Your task to perform on an android device: Open the Play Movies app and select the watchlist tab. Image 0: 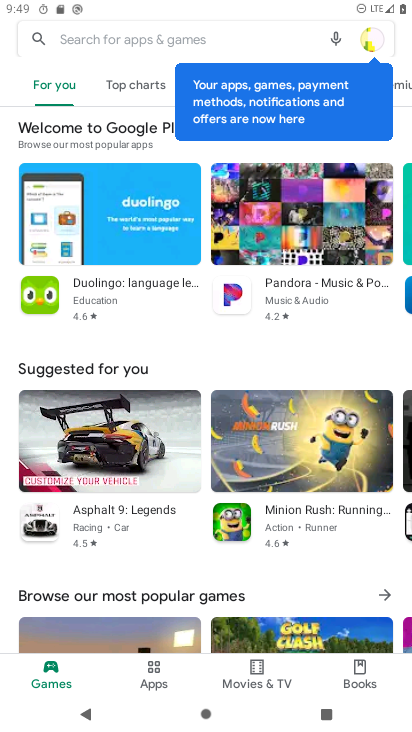
Step 0: press home button
Your task to perform on an android device: Open the Play Movies app and select the watchlist tab. Image 1: 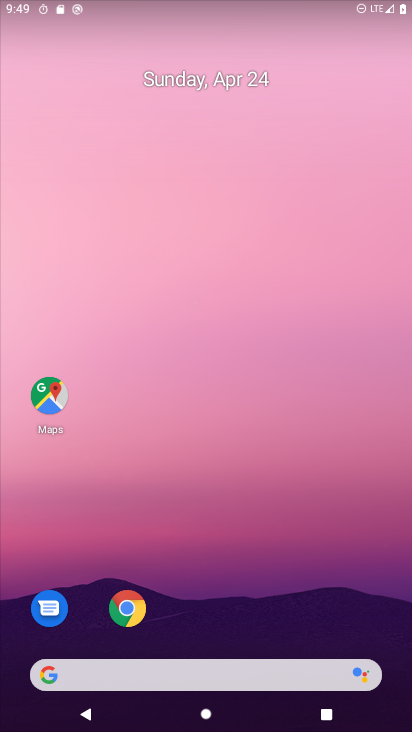
Step 1: drag from (293, 592) to (348, 64)
Your task to perform on an android device: Open the Play Movies app and select the watchlist tab. Image 2: 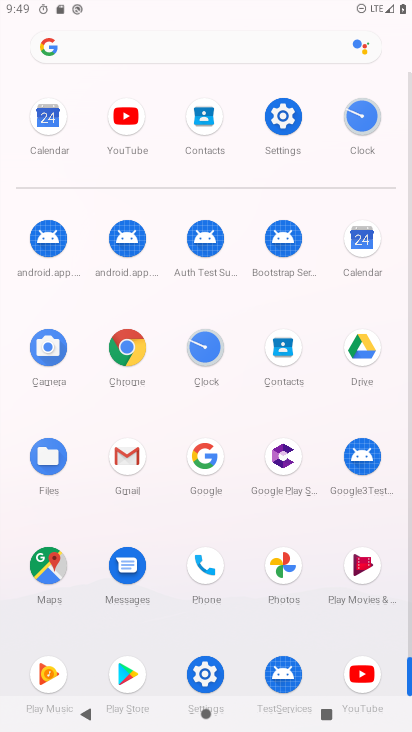
Step 2: click (359, 556)
Your task to perform on an android device: Open the Play Movies app and select the watchlist tab. Image 3: 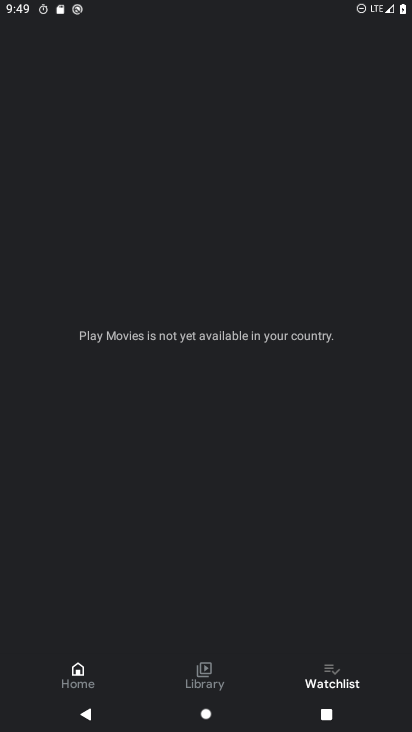
Step 3: click (330, 667)
Your task to perform on an android device: Open the Play Movies app and select the watchlist tab. Image 4: 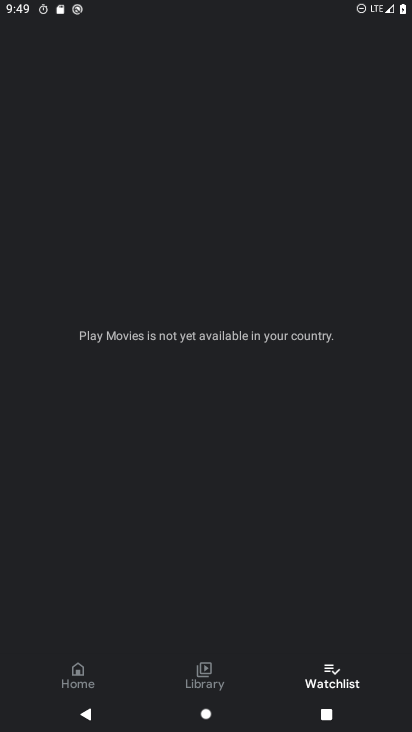
Step 4: task complete